Your task to perform on an android device: turn on wifi Image 0: 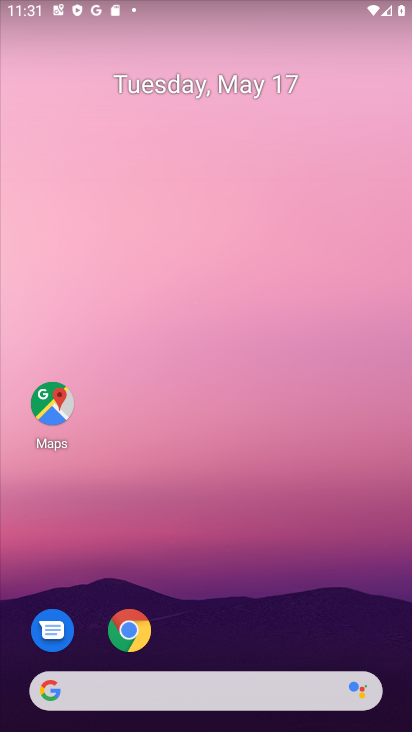
Step 0: drag from (216, 629) to (292, 249)
Your task to perform on an android device: turn on wifi Image 1: 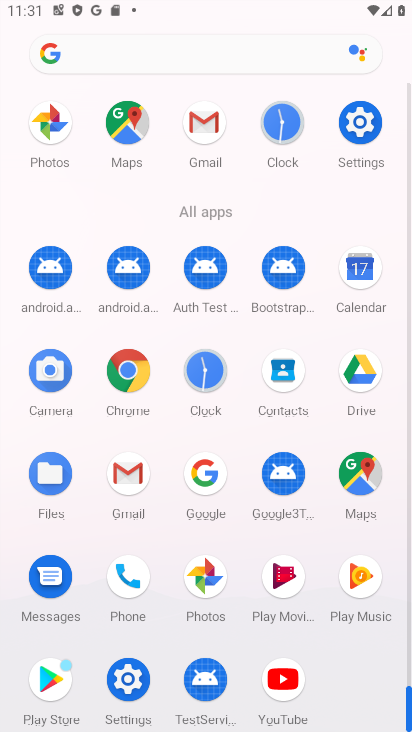
Step 1: drag from (168, 673) to (227, 501)
Your task to perform on an android device: turn on wifi Image 2: 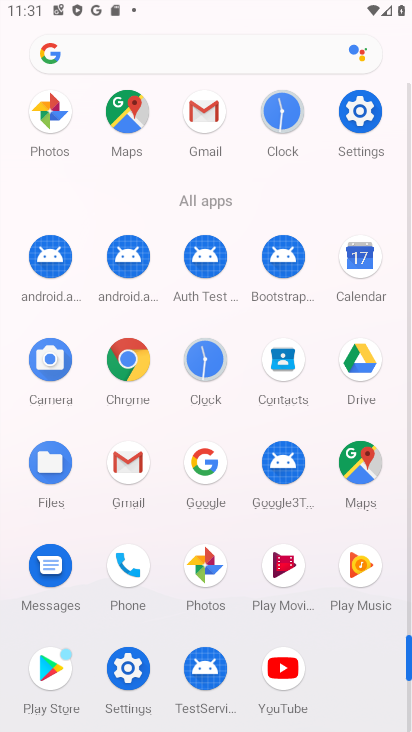
Step 2: click (133, 676)
Your task to perform on an android device: turn on wifi Image 3: 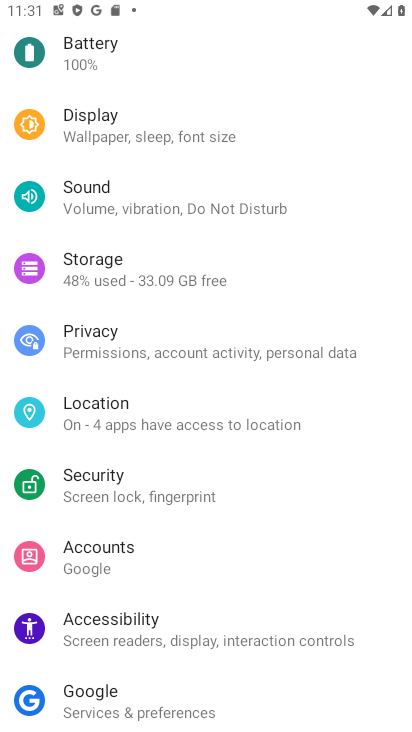
Step 3: drag from (248, 131) to (190, 610)
Your task to perform on an android device: turn on wifi Image 4: 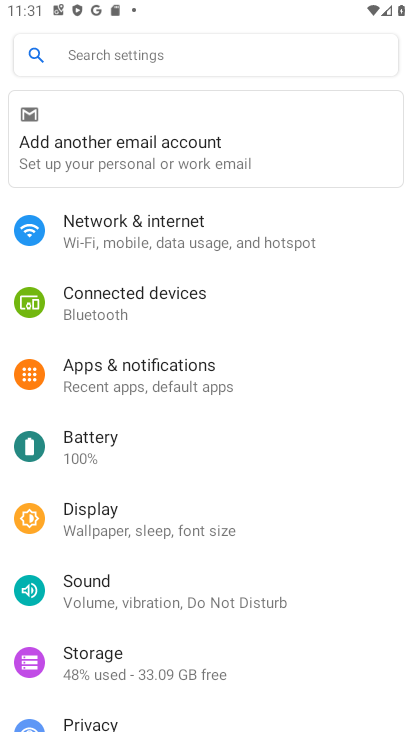
Step 4: click (165, 221)
Your task to perform on an android device: turn on wifi Image 5: 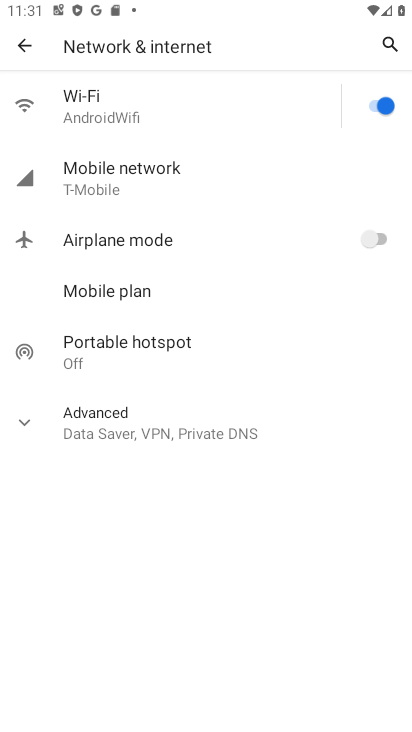
Step 5: task complete